Your task to perform on an android device: turn off notifications settings in the gmail app Image 0: 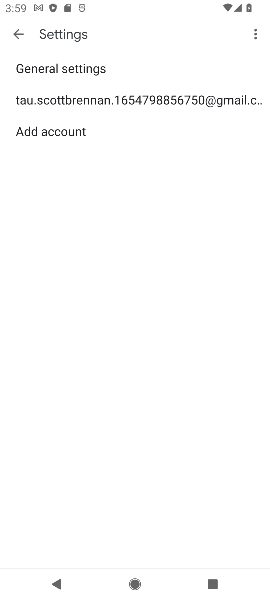
Step 0: press home button
Your task to perform on an android device: turn off notifications settings in the gmail app Image 1: 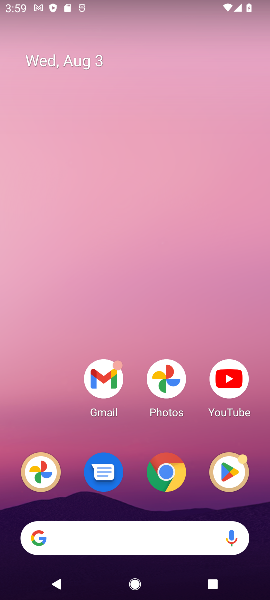
Step 1: drag from (53, 427) to (123, 36)
Your task to perform on an android device: turn off notifications settings in the gmail app Image 2: 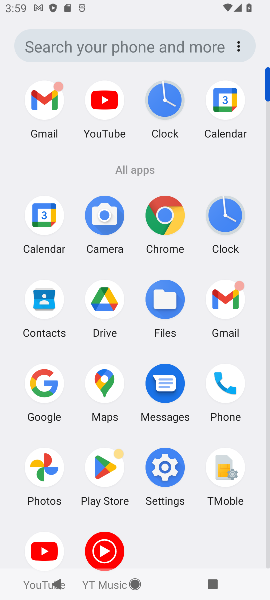
Step 2: click (45, 98)
Your task to perform on an android device: turn off notifications settings in the gmail app Image 3: 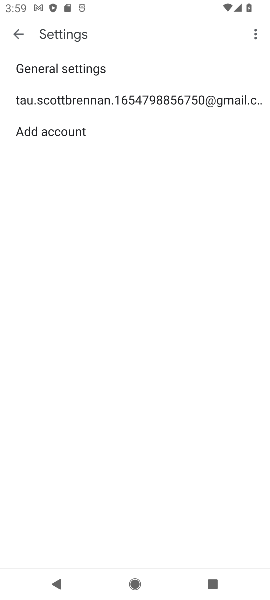
Step 3: click (56, 102)
Your task to perform on an android device: turn off notifications settings in the gmail app Image 4: 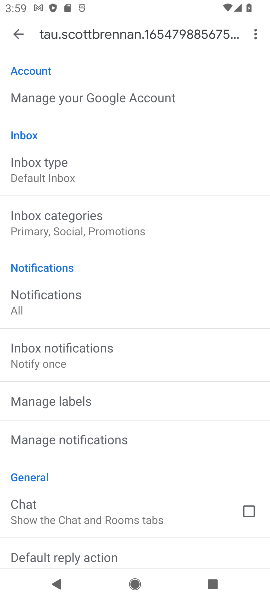
Step 4: click (88, 443)
Your task to perform on an android device: turn off notifications settings in the gmail app Image 5: 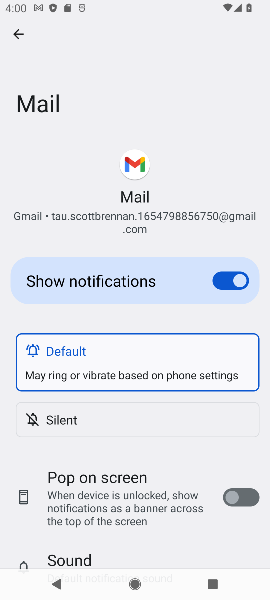
Step 5: click (211, 285)
Your task to perform on an android device: turn off notifications settings in the gmail app Image 6: 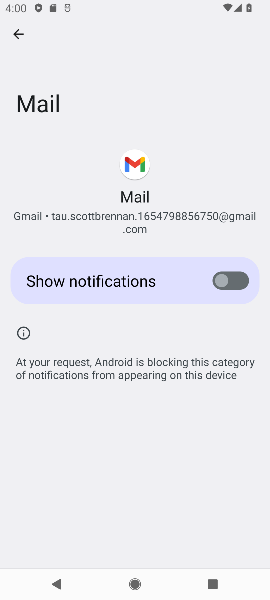
Step 6: task complete